Your task to perform on an android device: Open privacy settings Image 0: 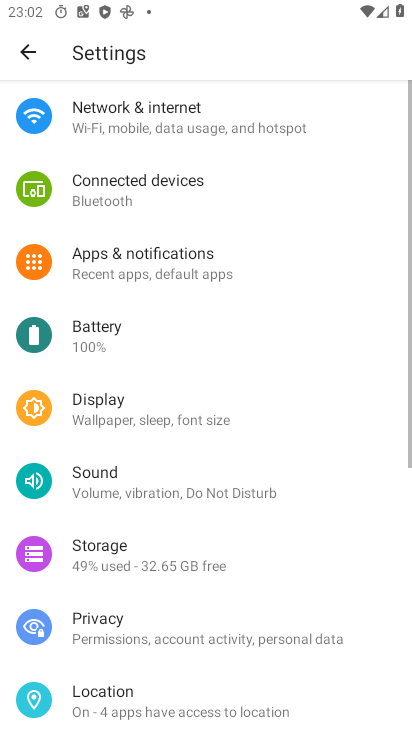
Step 0: press home button
Your task to perform on an android device: Open privacy settings Image 1: 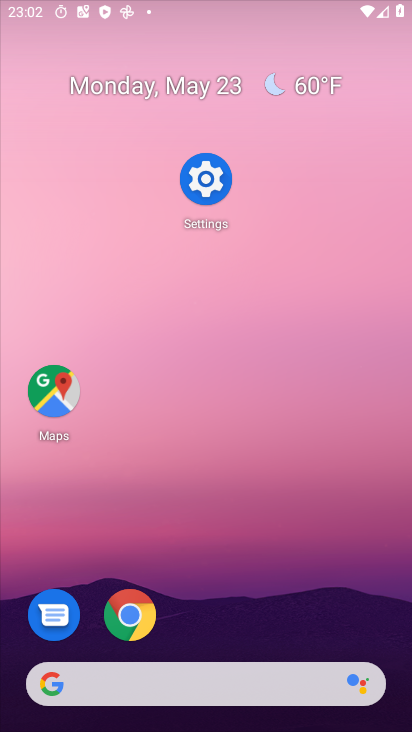
Step 1: drag from (232, 563) to (324, 46)
Your task to perform on an android device: Open privacy settings Image 2: 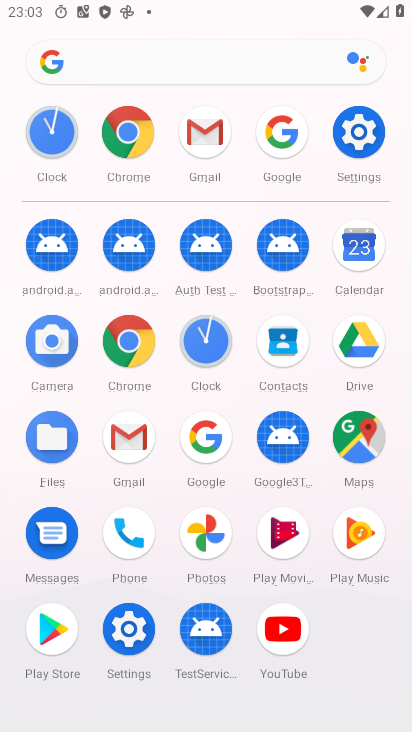
Step 2: click (344, 144)
Your task to perform on an android device: Open privacy settings Image 3: 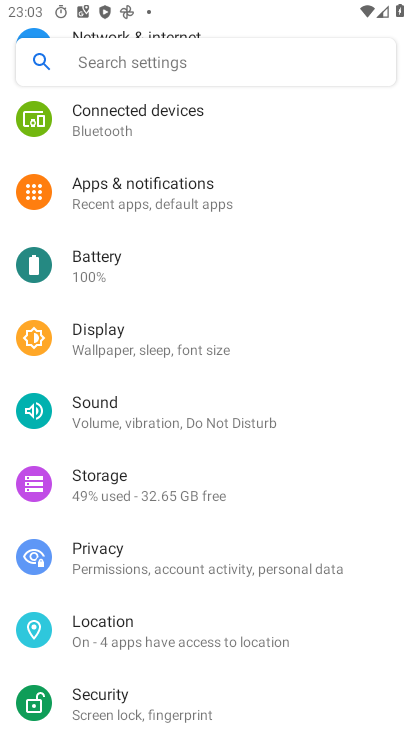
Step 3: click (143, 552)
Your task to perform on an android device: Open privacy settings Image 4: 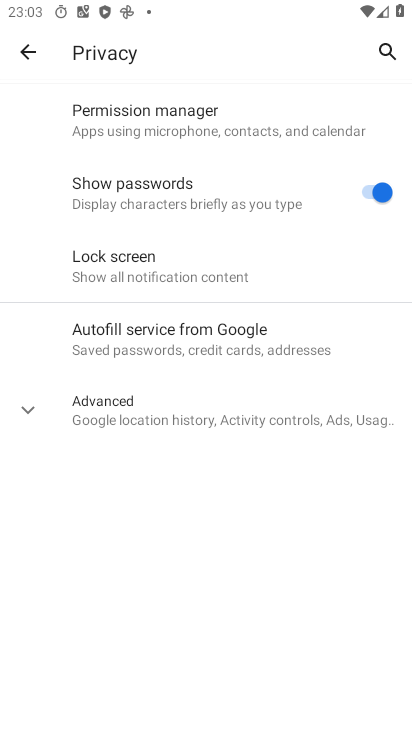
Step 4: task complete